Your task to perform on an android device: Open Google Image 0: 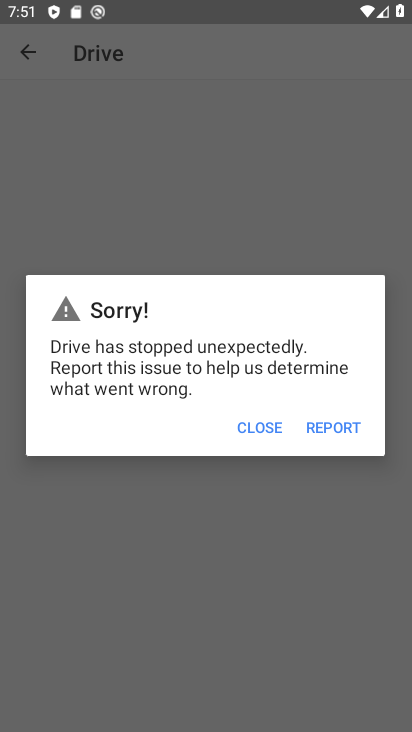
Step 0: press back button
Your task to perform on an android device: Open Google Image 1: 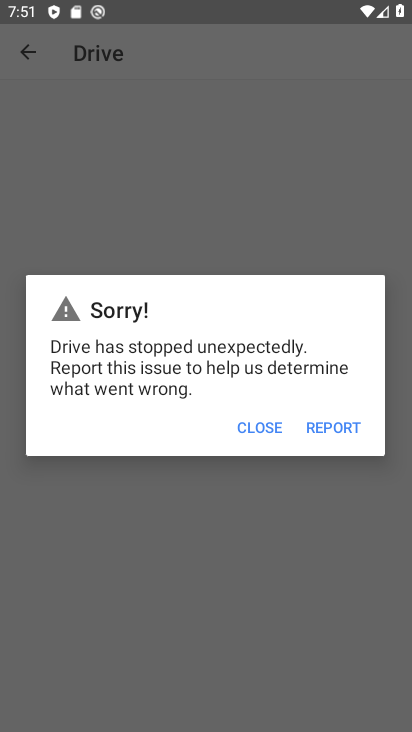
Step 1: press back button
Your task to perform on an android device: Open Google Image 2: 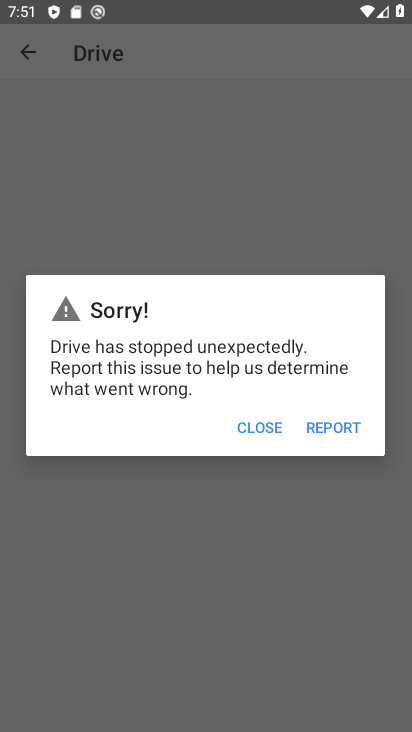
Step 2: press home button
Your task to perform on an android device: Open Google Image 3: 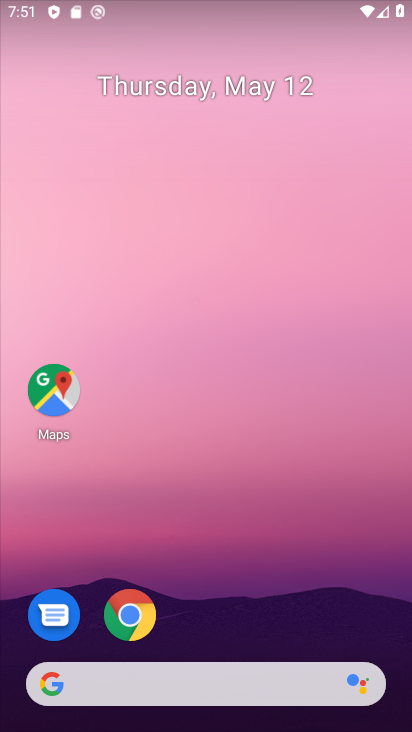
Step 3: drag from (248, 553) to (0, 50)
Your task to perform on an android device: Open Google Image 4: 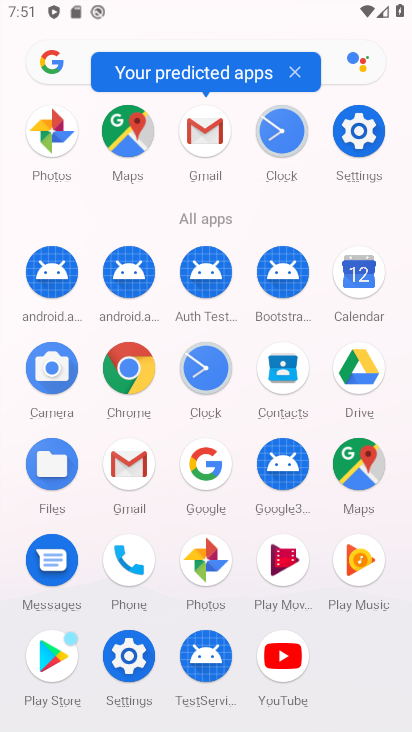
Step 4: click (127, 368)
Your task to perform on an android device: Open Google Image 5: 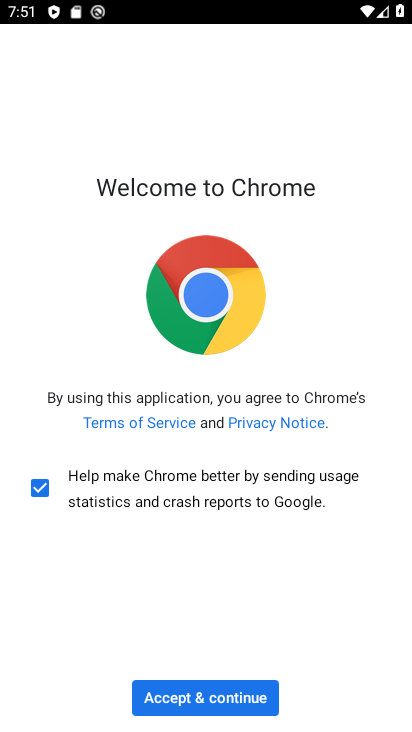
Step 5: click (187, 696)
Your task to perform on an android device: Open Google Image 6: 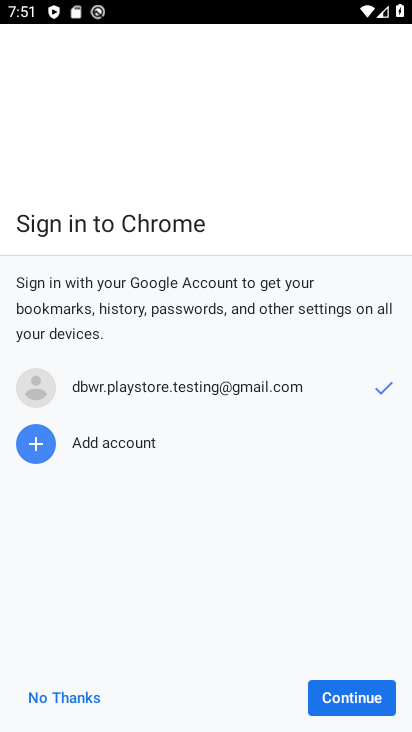
Step 6: click (350, 689)
Your task to perform on an android device: Open Google Image 7: 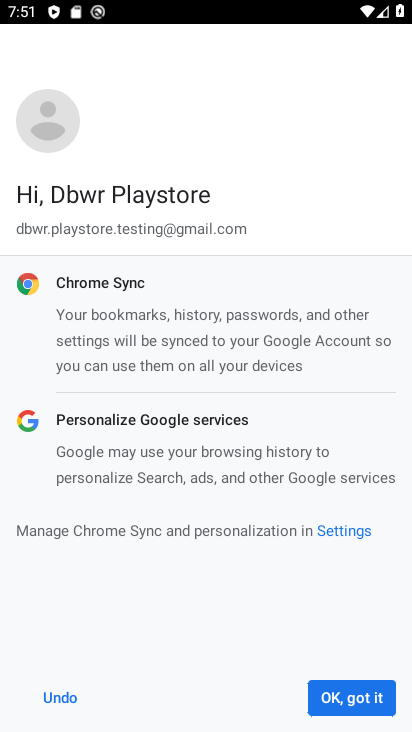
Step 7: click (350, 689)
Your task to perform on an android device: Open Google Image 8: 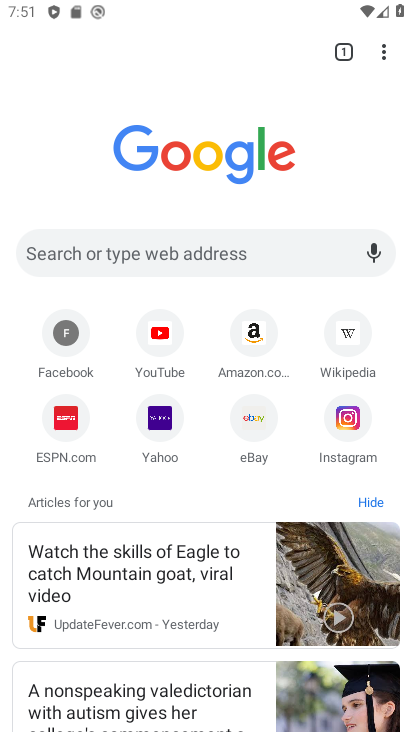
Step 8: click (241, 250)
Your task to perform on an android device: Open Google Image 9: 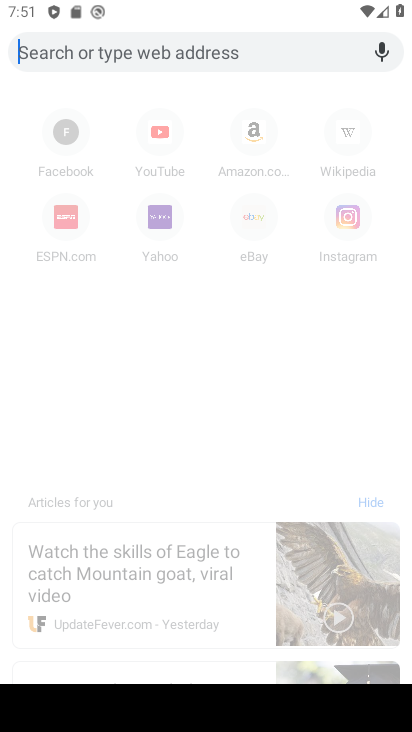
Step 9: type "Google"
Your task to perform on an android device: Open Google Image 10: 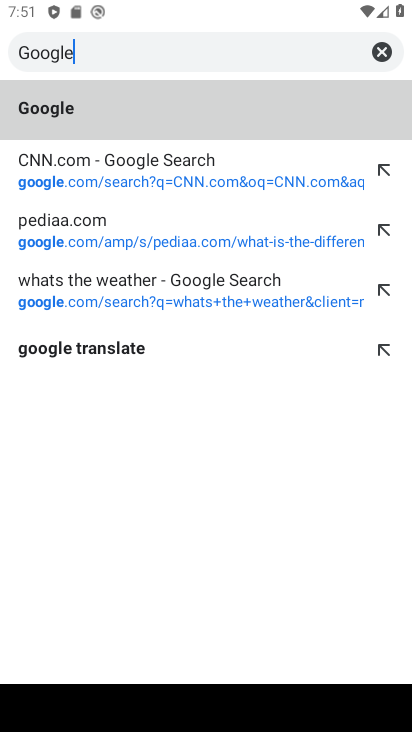
Step 10: type ""
Your task to perform on an android device: Open Google Image 11: 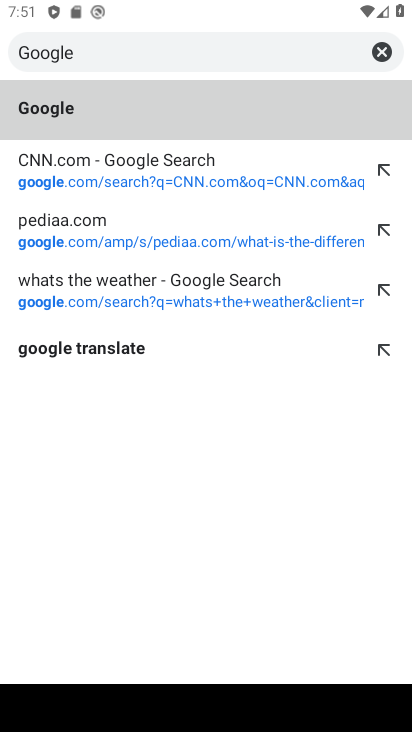
Step 11: click (78, 134)
Your task to perform on an android device: Open Google Image 12: 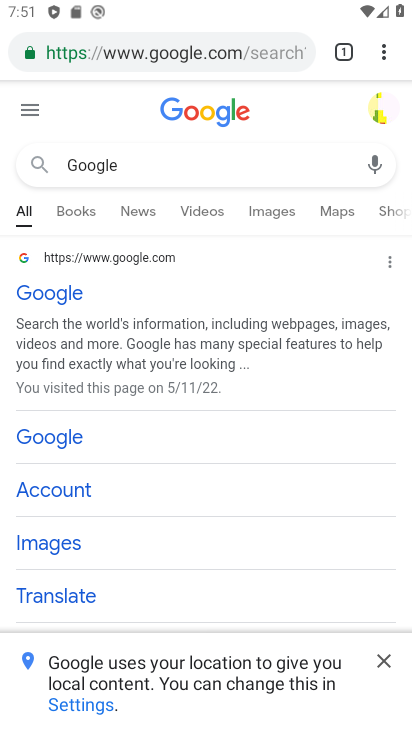
Step 12: click (63, 288)
Your task to perform on an android device: Open Google Image 13: 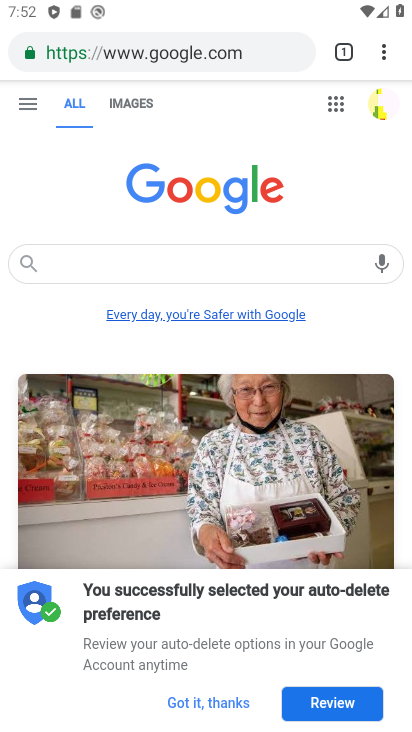
Step 13: task complete